Your task to perform on an android device: turn on notifications settings in the gmail app Image 0: 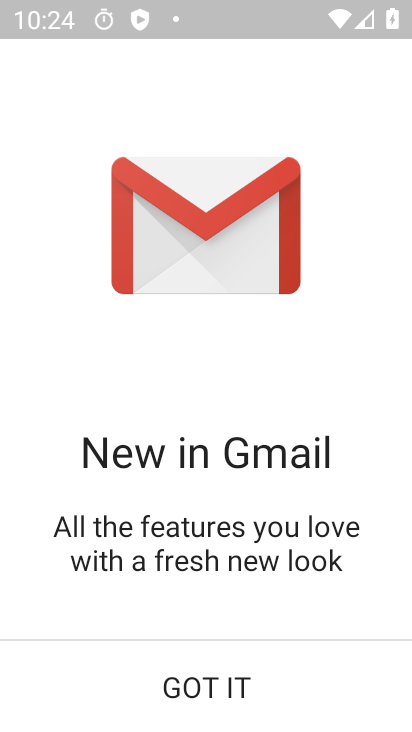
Step 0: press home button
Your task to perform on an android device: turn on notifications settings in the gmail app Image 1: 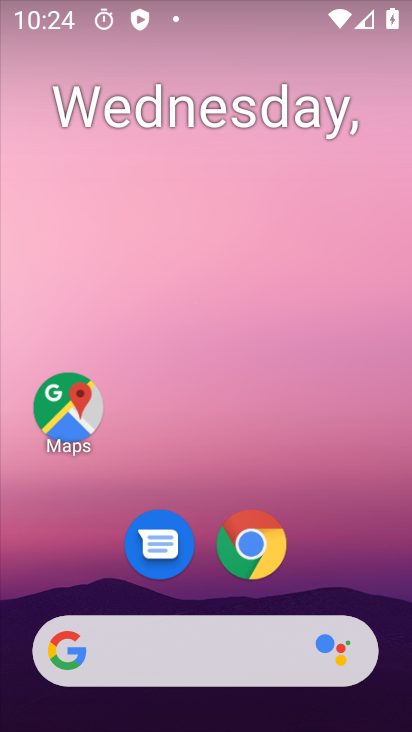
Step 1: drag from (240, 674) to (272, 204)
Your task to perform on an android device: turn on notifications settings in the gmail app Image 2: 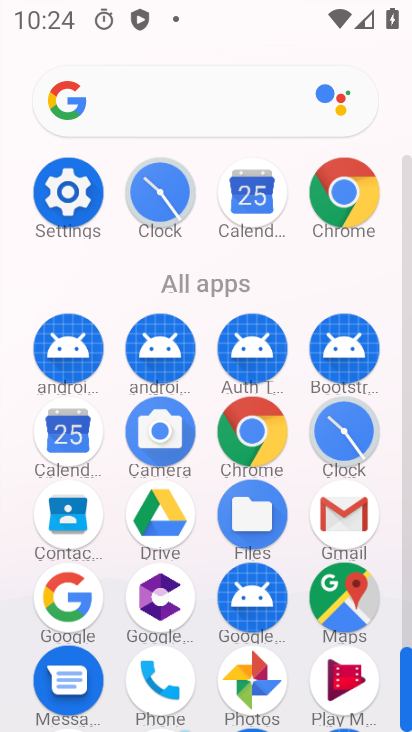
Step 2: click (340, 509)
Your task to perform on an android device: turn on notifications settings in the gmail app Image 3: 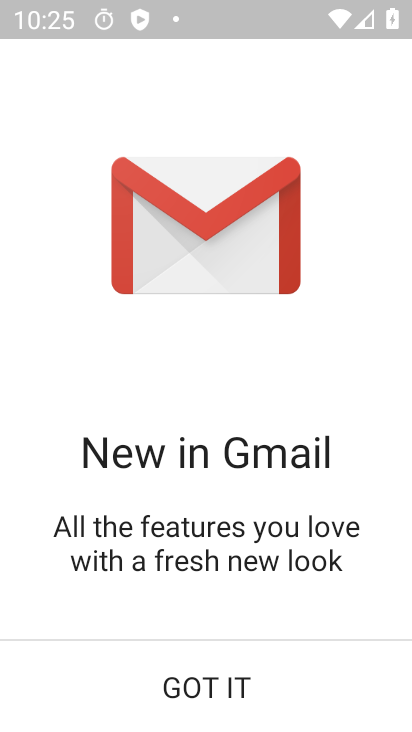
Step 3: click (209, 716)
Your task to perform on an android device: turn on notifications settings in the gmail app Image 4: 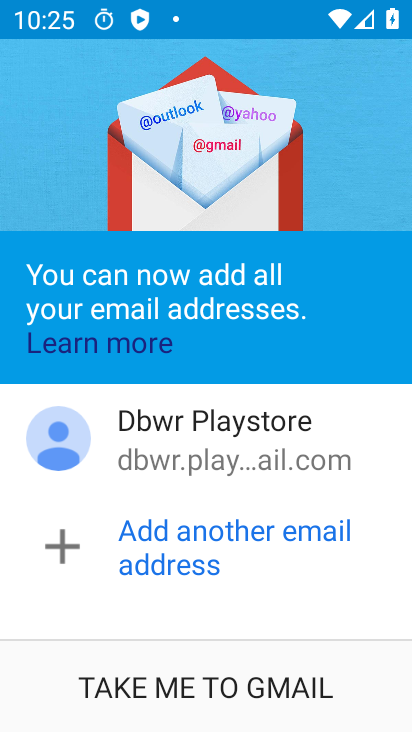
Step 4: click (209, 709)
Your task to perform on an android device: turn on notifications settings in the gmail app Image 5: 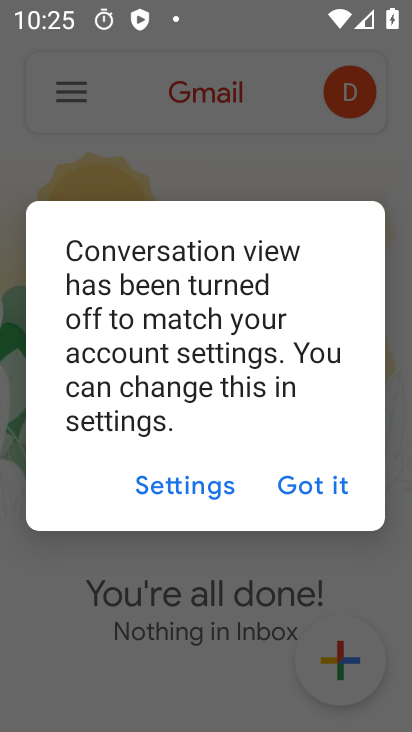
Step 5: click (325, 490)
Your task to perform on an android device: turn on notifications settings in the gmail app Image 6: 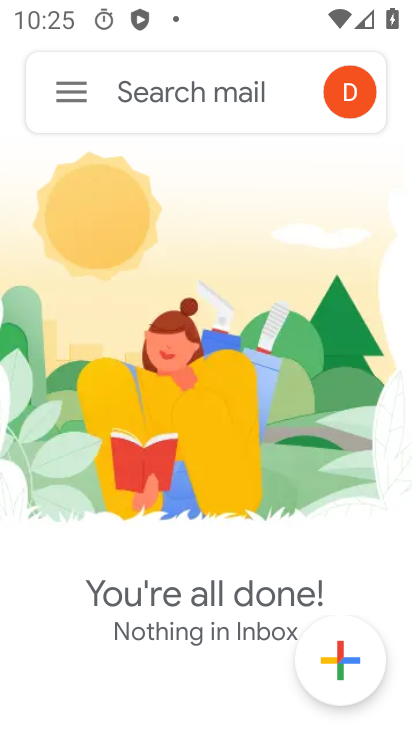
Step 6: click (78, 103)
Your task to perform on an android device: turn on notifications settings in the gmail app Image 7: 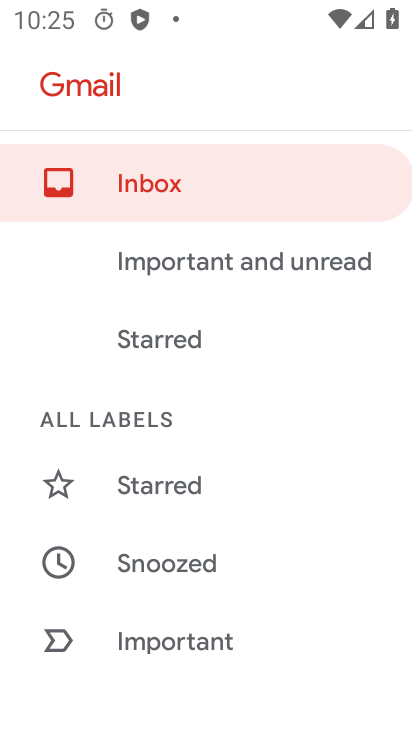
Step 7: drag from (196, 595) to (236, 314)
Your task to perform on an android device: turn on notifications settings in the gmail app Image 8: 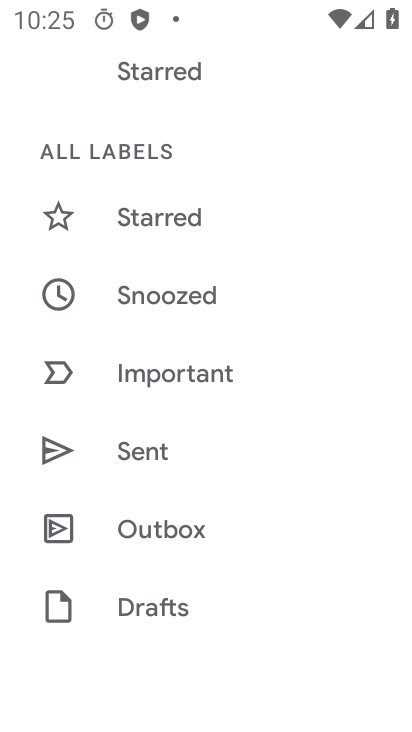
Step 8: drag from (170, 514) to (176, 190)
Your task to perform on an android device: turn on notifications settings in the gmail app Image 9: 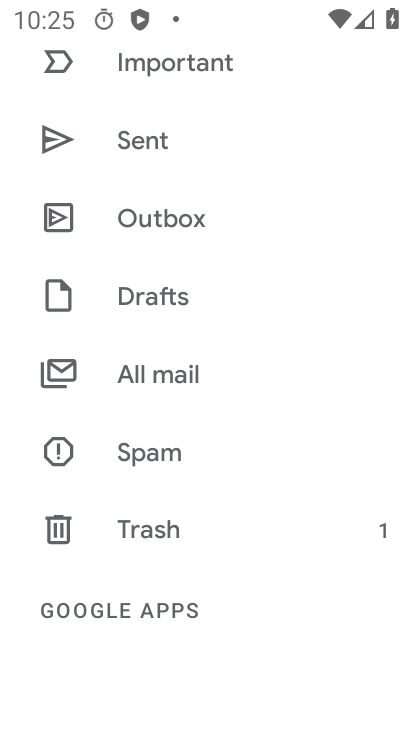
Step 9: drag from (212, 498) to (218, 238)
Your task to perform on an android device: turn on notifications settings in the gmail app Image 10: 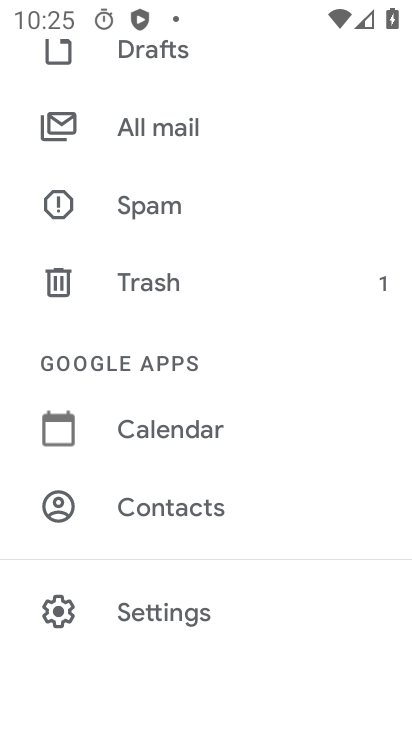
Step 10: click (180, 613)
Your task to perform on an android device: turn on notifications settings in the gmail app Image 11: 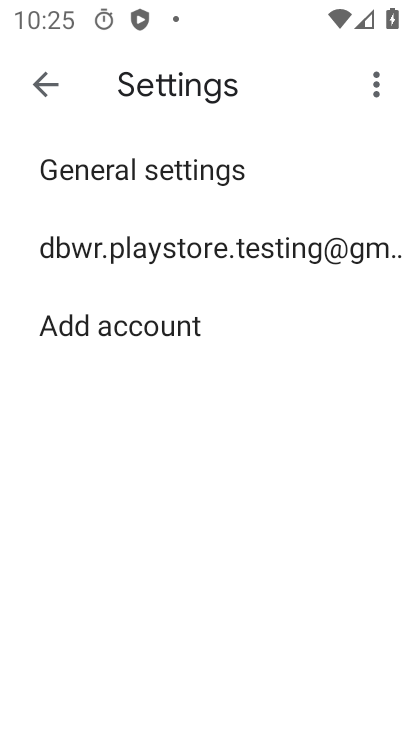
Step 11: click (172, 240)
Your task to perform on an android device: turn on notifications settings in the gmail app Image 12: 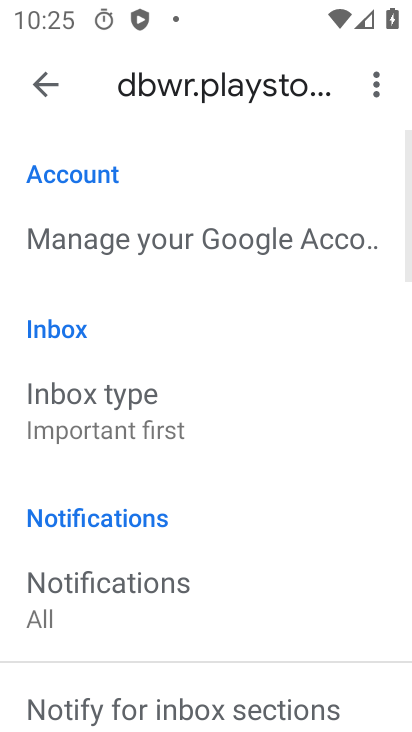
Step 12: click (143, 587)
Your task to perform on an android device: turn on notifications settings in the gmail app Image 13: 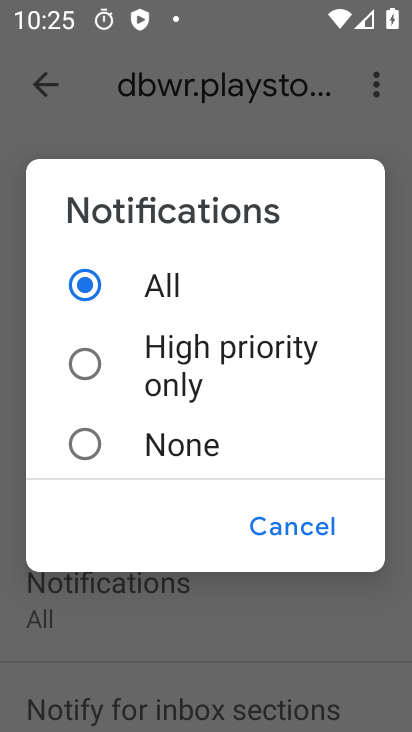
Step 13: task complete